Your task to perform on an android device: Go to settings Image 0: 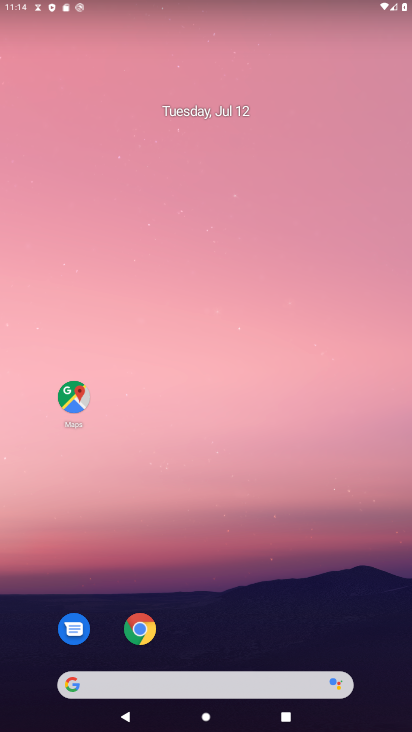
Step 0: drag from (343, 501) to (384, 6)
Your task to perform on an android device: Go to settings Image 1: 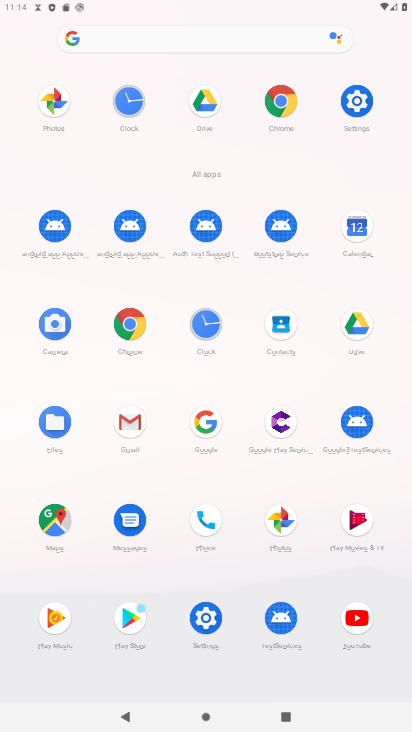
Step 1: click (338, 77)
Your task to perform on an android device: Go to settings Image 2: 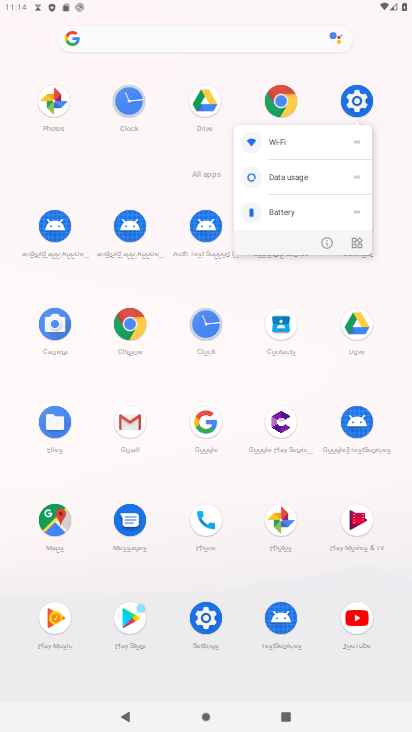
Step 2: click (357, 98)
Your task to perform on an android device: Go to settings Image 3: 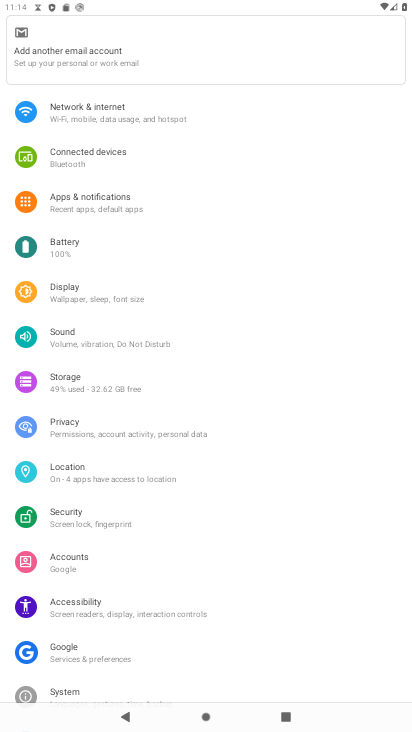
Step 3: task complete